Your task to perform on an android device: move an email to a new category in the gmail app Image 0: 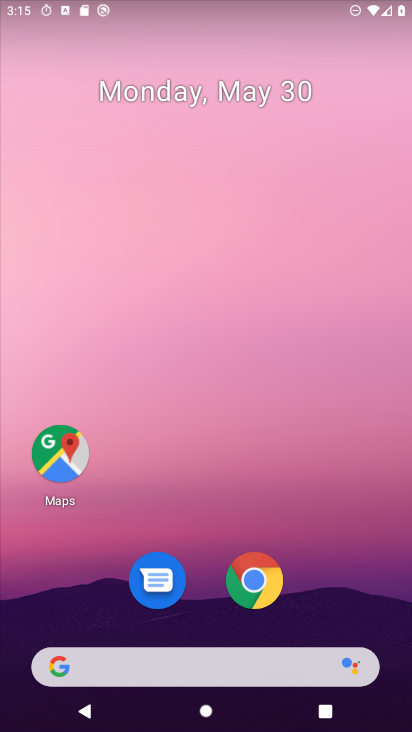
Step 0: drag from (315, 591) to (325, 119)
Your task to perform on an android device: move an email to a new category in the gmail app Image 1: 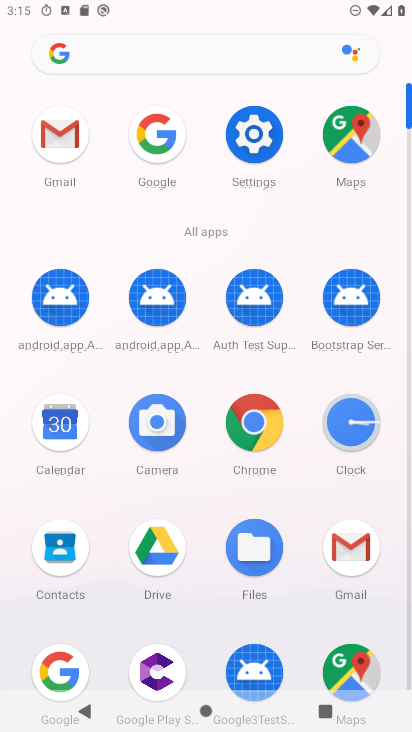
Step 1: click (63, 132)
Your task to perform on an android device: move an email to a new category in the gmail app Image 2: 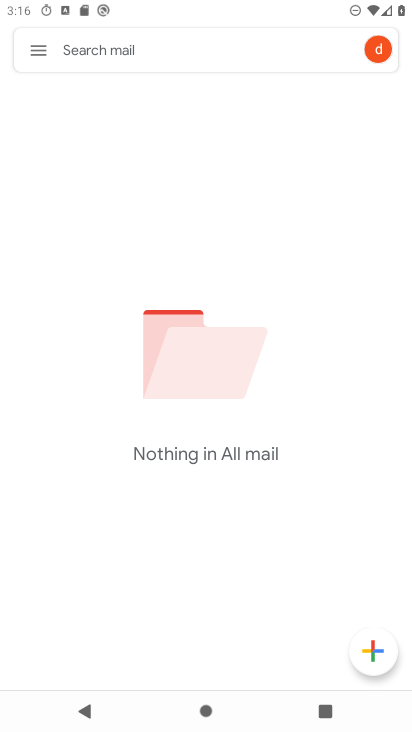
Step 2: task complete